Your task to perform on an android device: change the clock style Image 0: 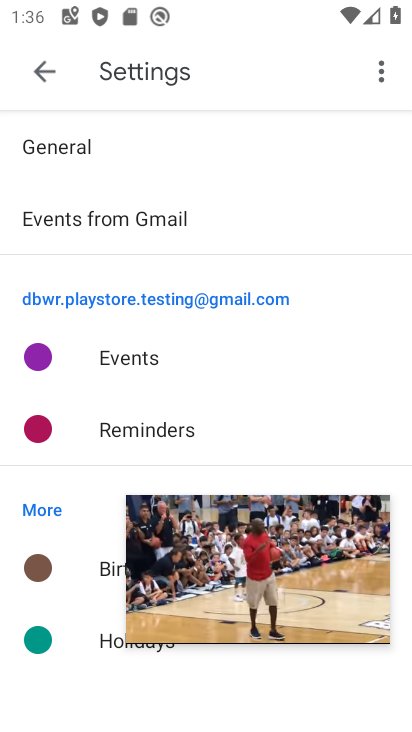
Step 0: click (402, 429)
Your task to perform on an android device: change the clock style Image 1: 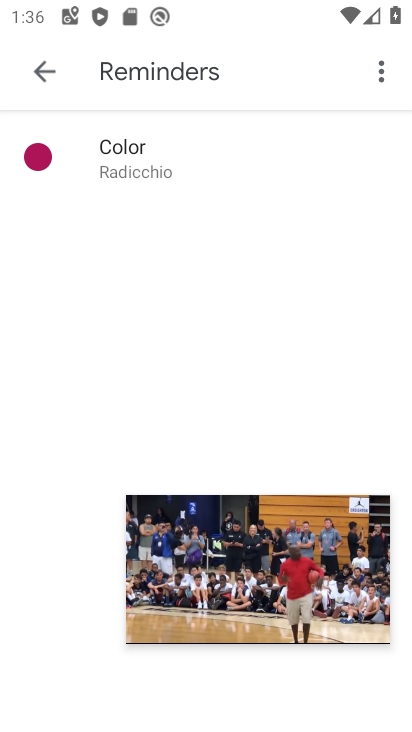
Step 1: click (302, 548)
Your task to perform on an android device: change the clock style Image 2: 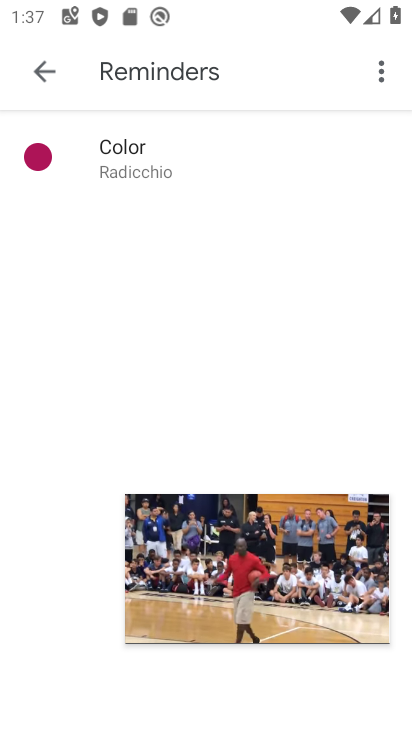
Step 2: click (382, 458)
Your task to perform on an android device: change the clock style Image 3: 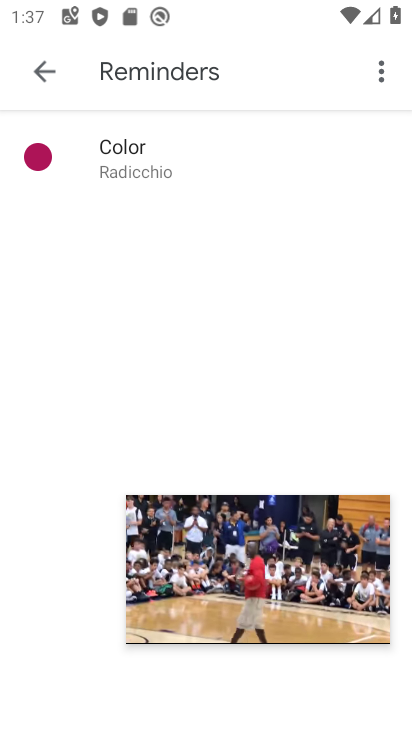
Step 3: drag from (353, 565) to (41, 469)
Your task to perform on an android device: change the clock style Image 4: 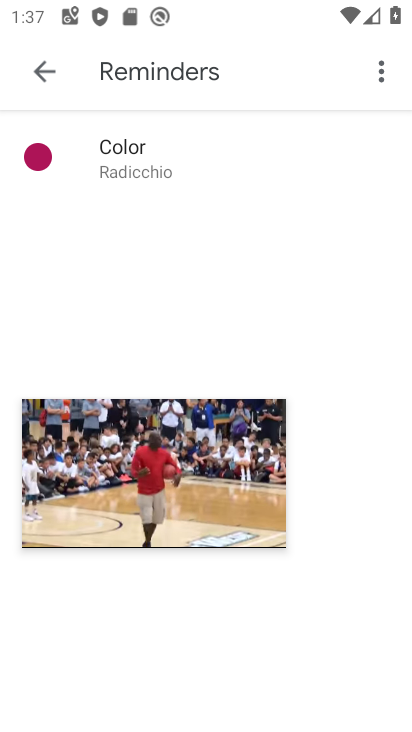
Step 4: press home button
Your task to perform on an android device: change the clock style Image 5: 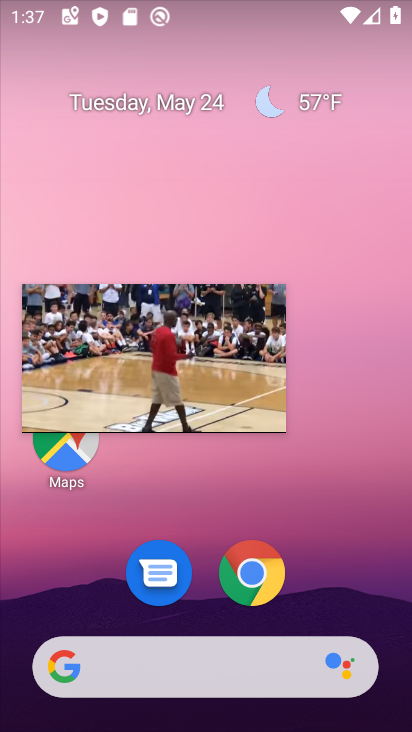
Step 5: drag from (261, 412) to (1, 390)
Your task to perform on an android device: change the clock style Image 6: 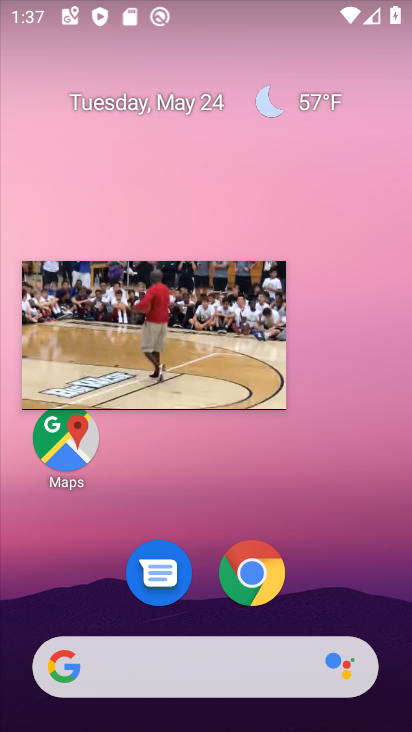
Step 6: drag from (195, 318) to (241, 730)
Your task to perform on an android device: change the clock style Image 7: 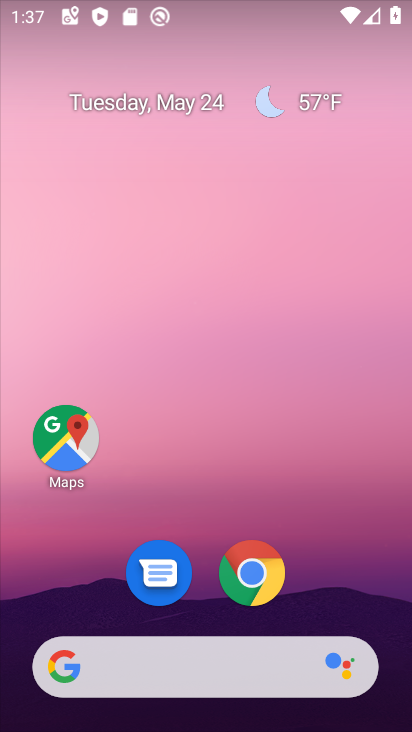
Step 7: drag from (353, 491) to (366, 193)
Your task to perform on an android device: change the clock style Image 8: 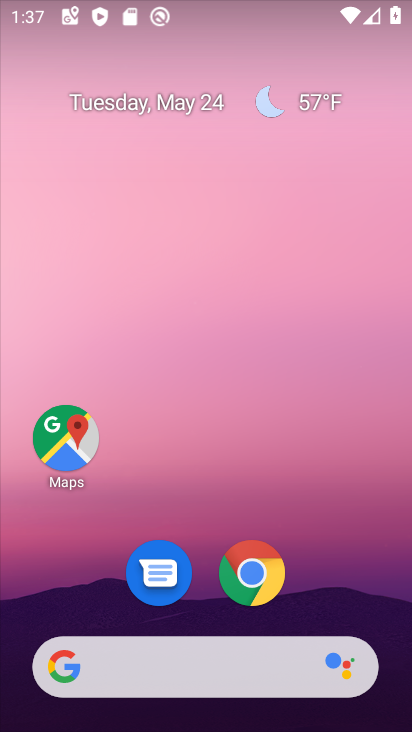
Step 8: drag from (357, 618) to (359, 91)
Your task to perform on an android device: change the clock style Image 9: 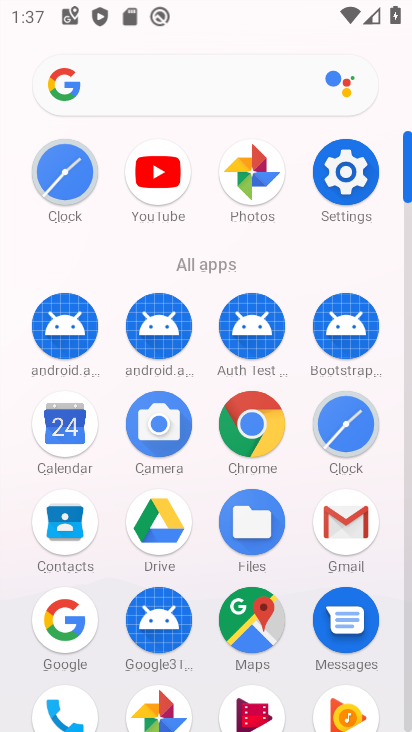
Step 9: click (349, 439)
Your task to perform on an android device: change the clock style Image 10: 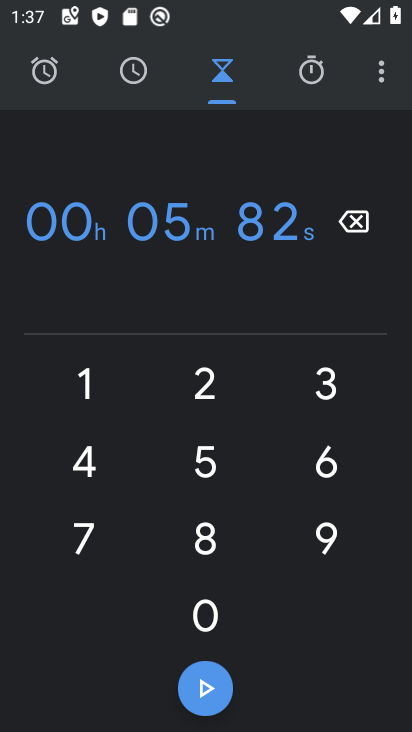
Step 10: click (390, 77)
Your task to perform on an android device: change the clock style Image 11: 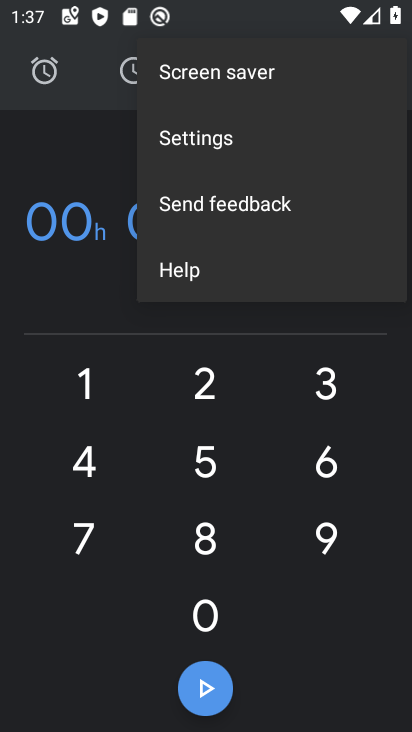
Step 11: click (245, 141)
Your task to perform on an android device: change the clock style Image 12: 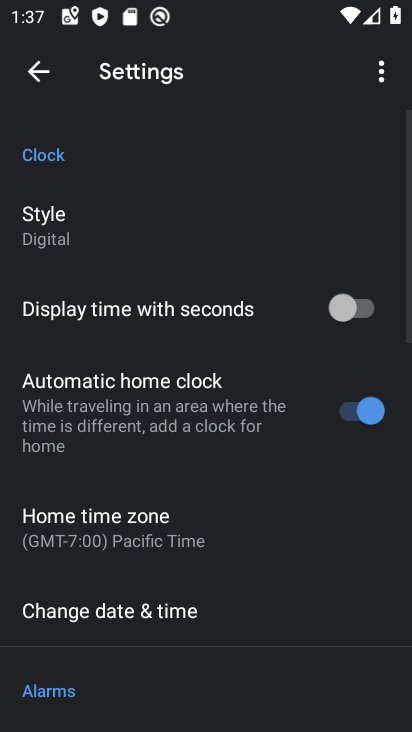
Step 12: click (215, 233)
Your task to perform on an android device: change the clock style Image 13: 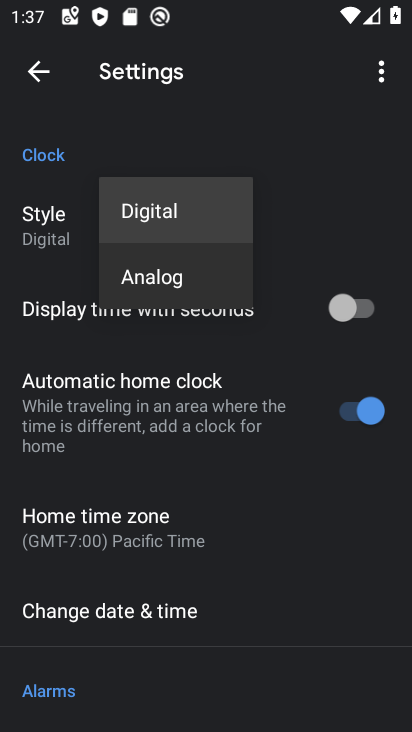
Step 13: click (184, 276)
Your task to perform on an android device: change the clock style Image 14: 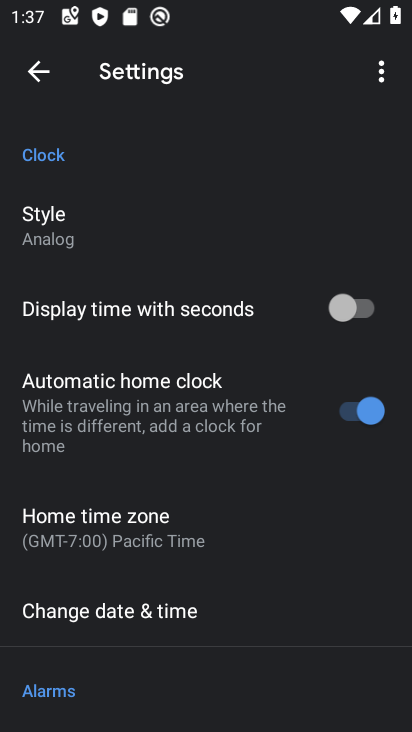
Step 14: task complete